Your task to perform on an android device: clear history in the chrome app Image 0: 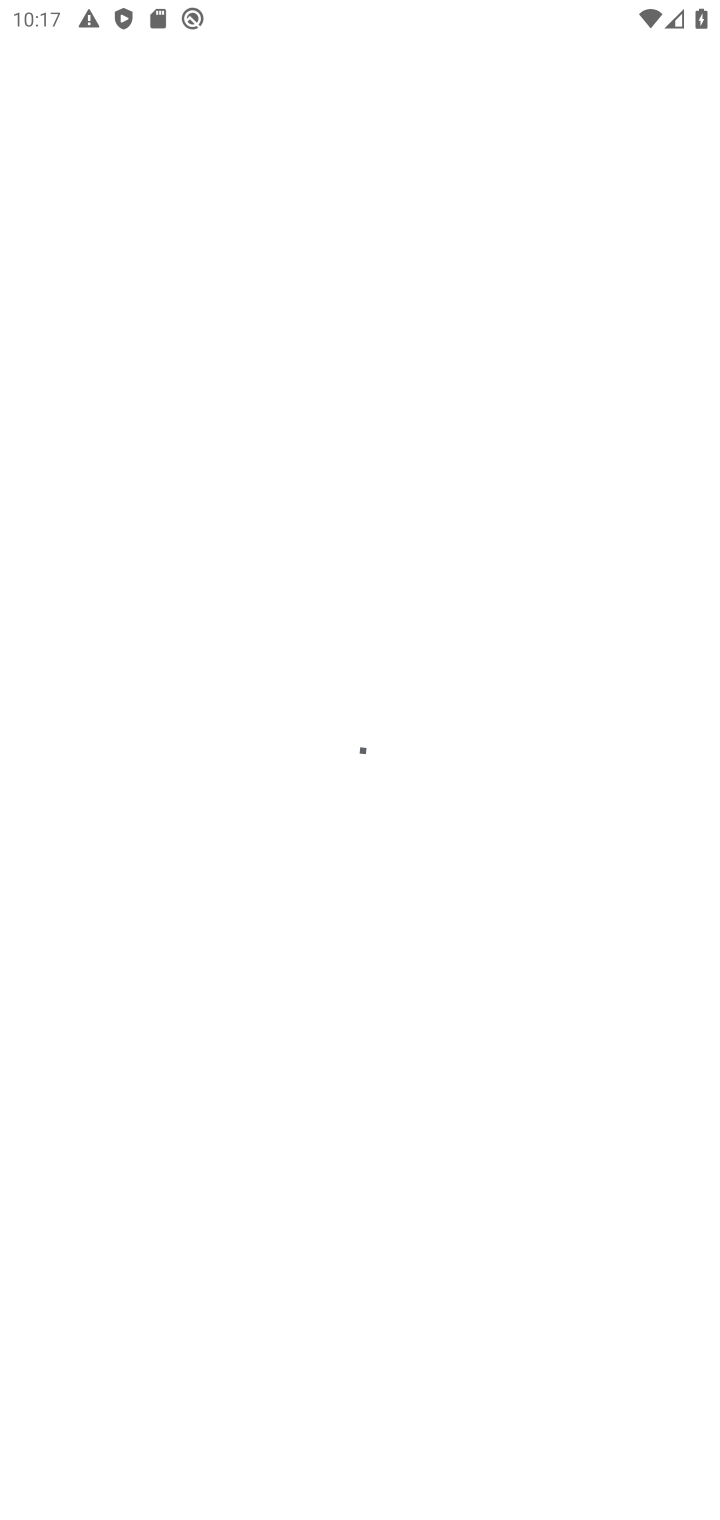
Step 0: press home button
Your task to perform on an android device: clear history in the chrome app Image 1: 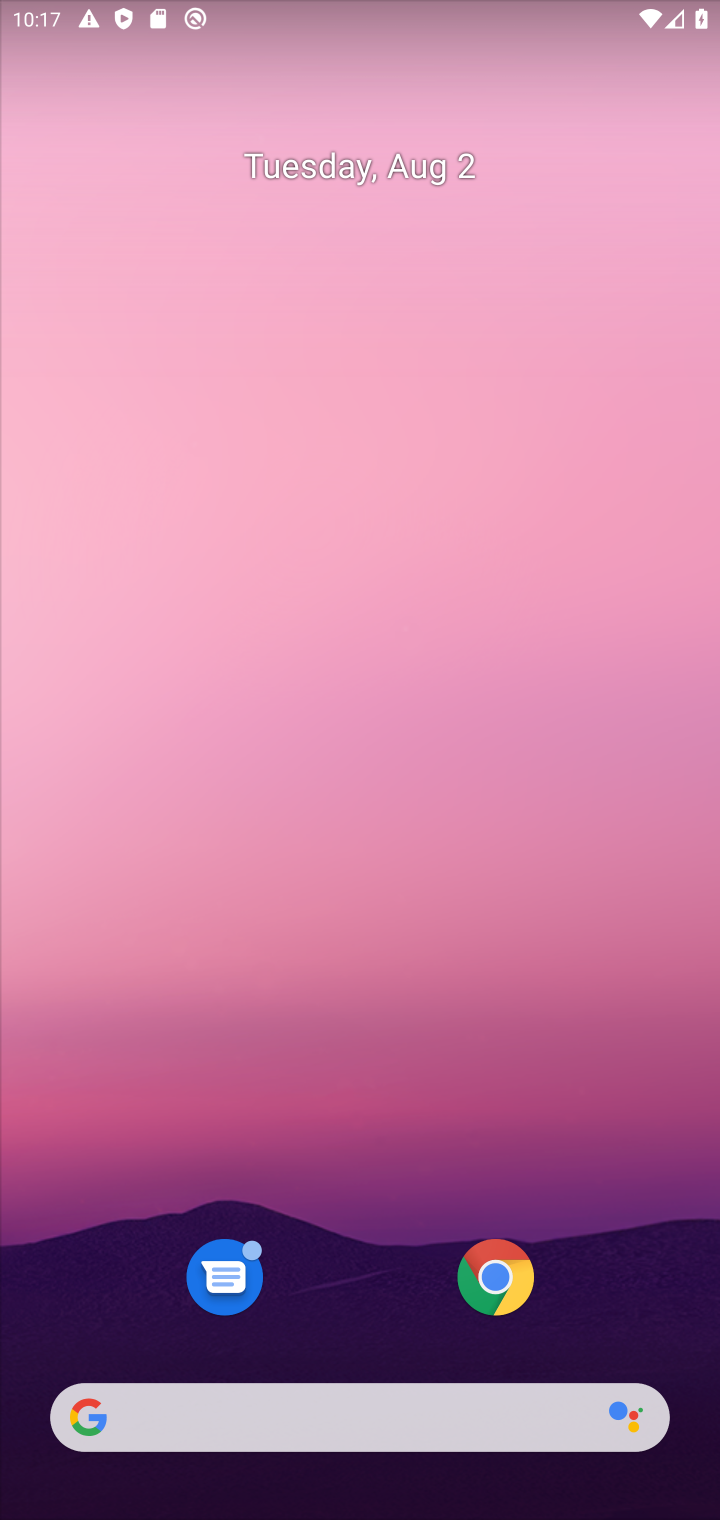
Step 1: click (504, 1281)
Your task to perform on an android device: clear history in the chrome app Image 2: 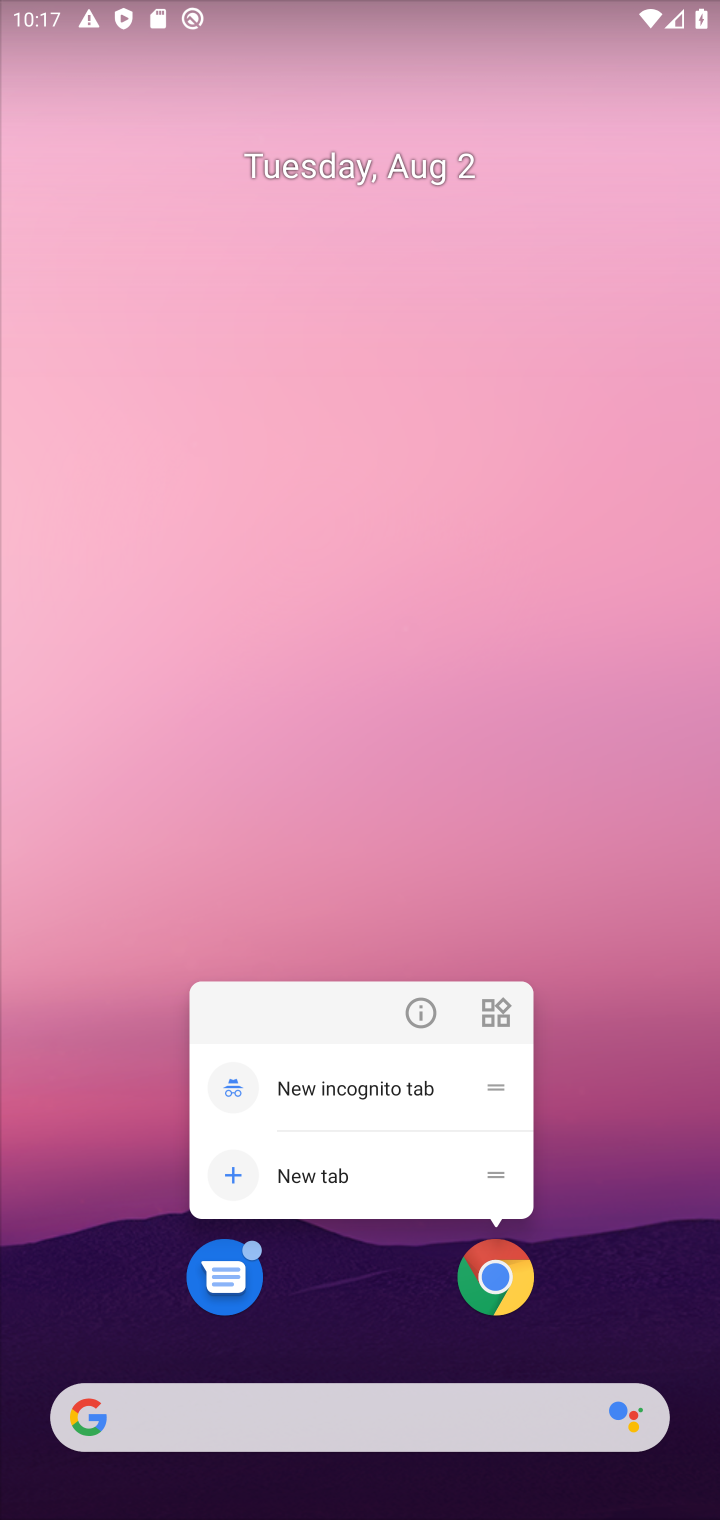
Step 2: click (504, 1281)
Your task to perform on an android device: clear history in the chrome app Image 3: 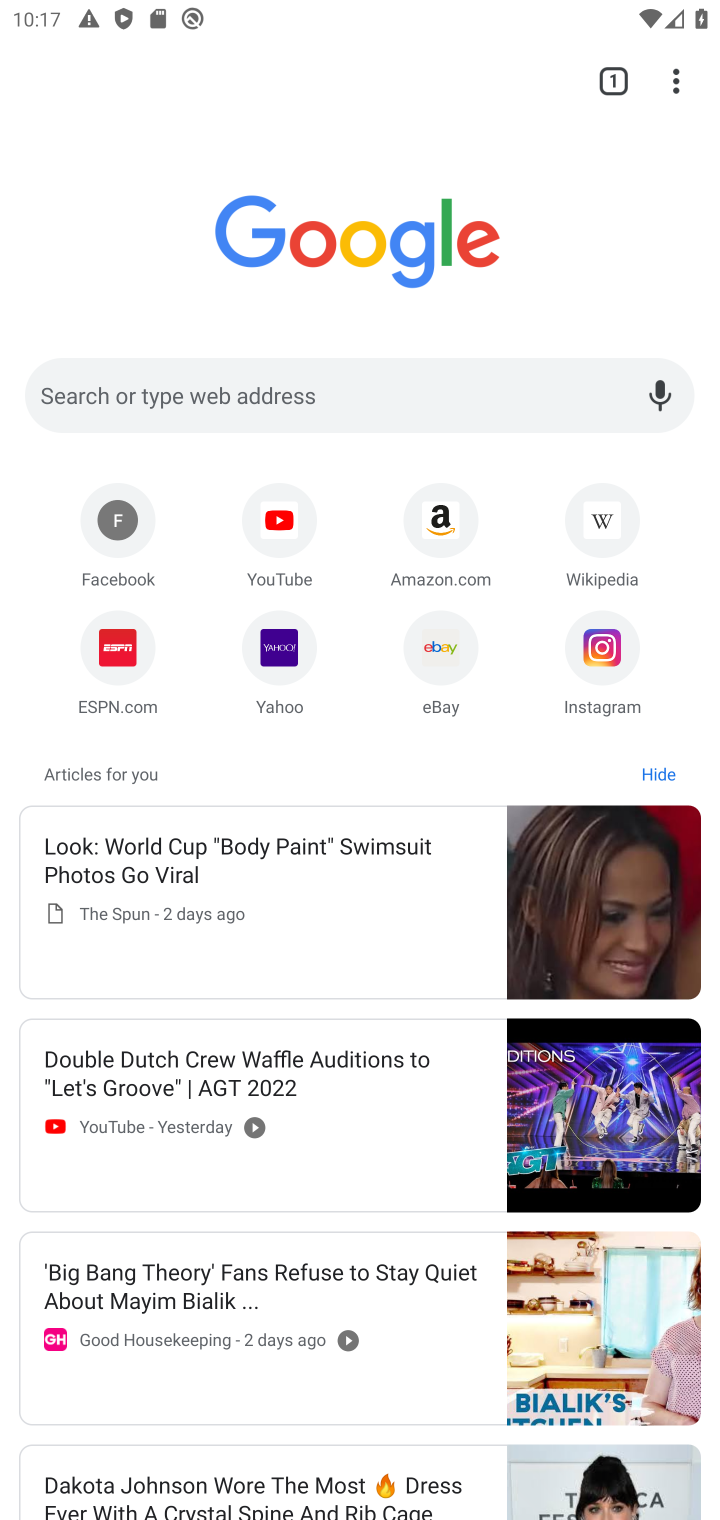
Step 3: click (672, 86)
Your task to perform on an android device: clear history in the chrome app Image 4: 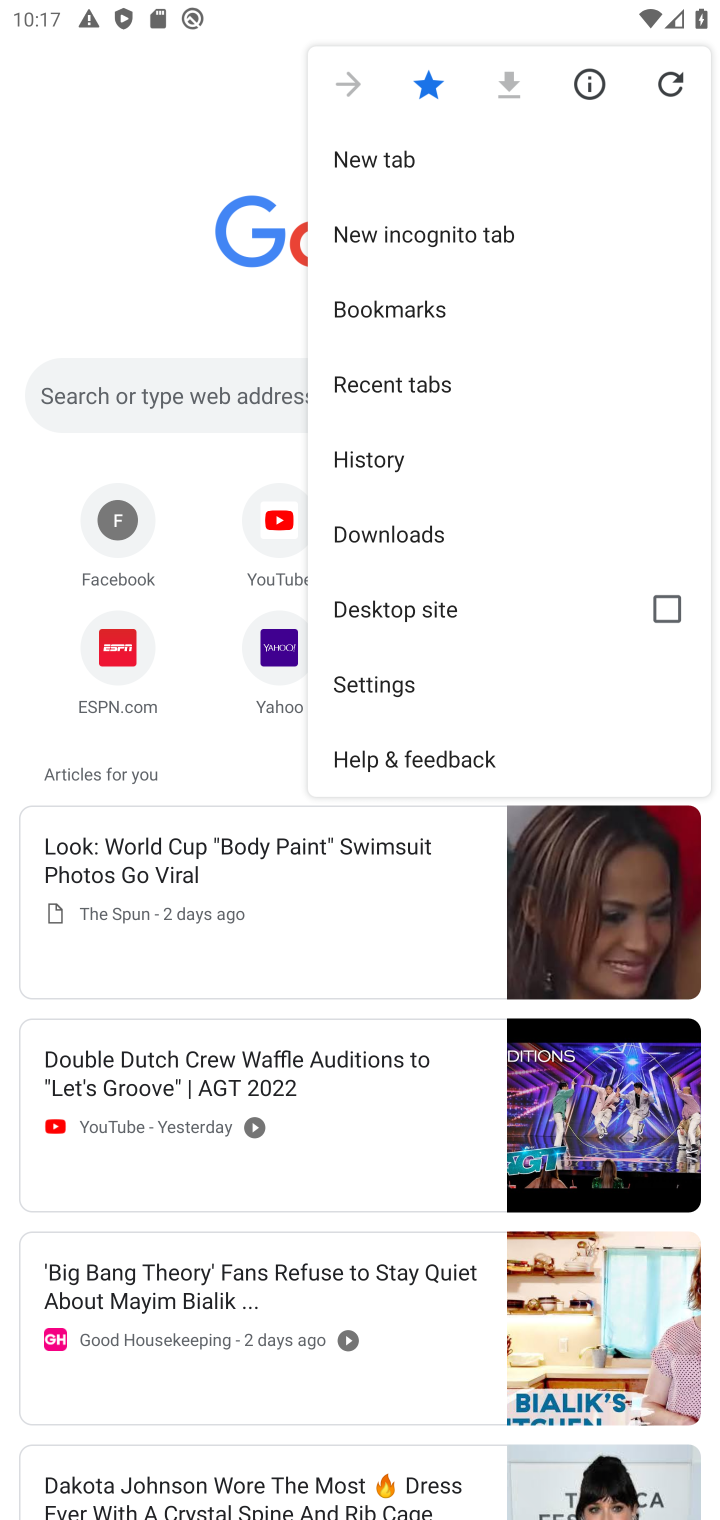
Step 4: click (361, 462)
Your task to perform on an android device: clear history in the chrome app Image 5: 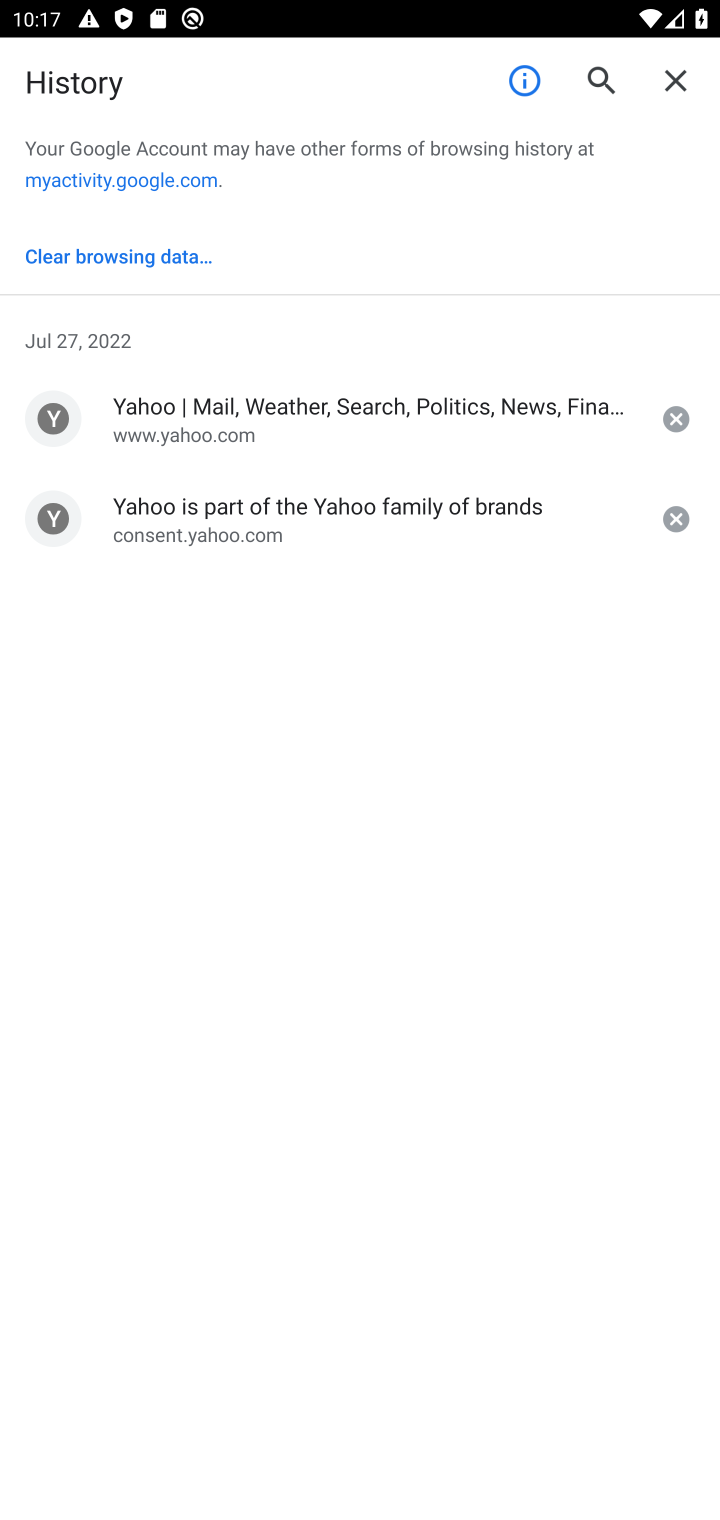
Step 5: click (119, 254)
Your task to perform on an android device: clear history in the chrome app Image 6: 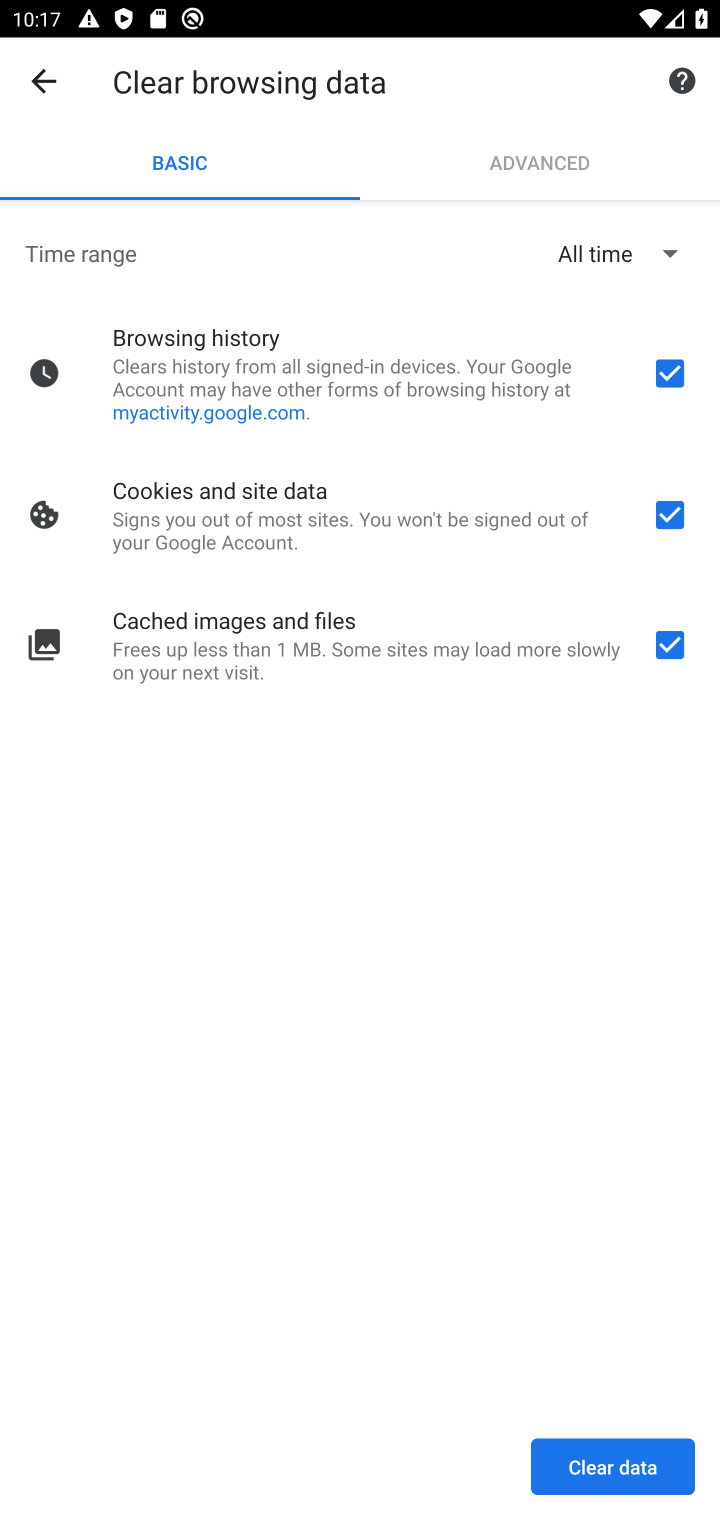
Step 6: click (671, 505)
Your task to perform on an android device: clear history in the chrome app Image 7: 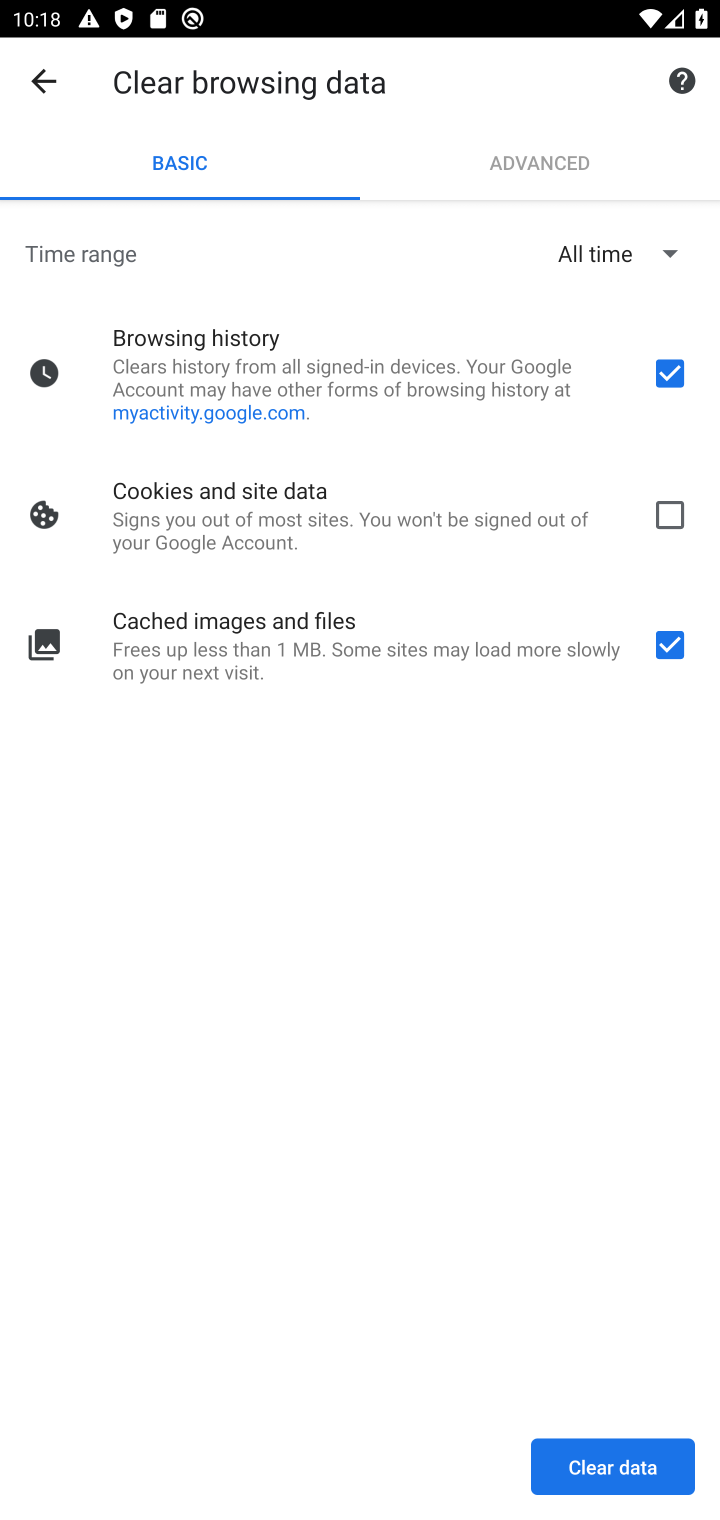
Step 7: click (667, 653)
Your task to perform on an android device: clear history in the chrome app Image 8: 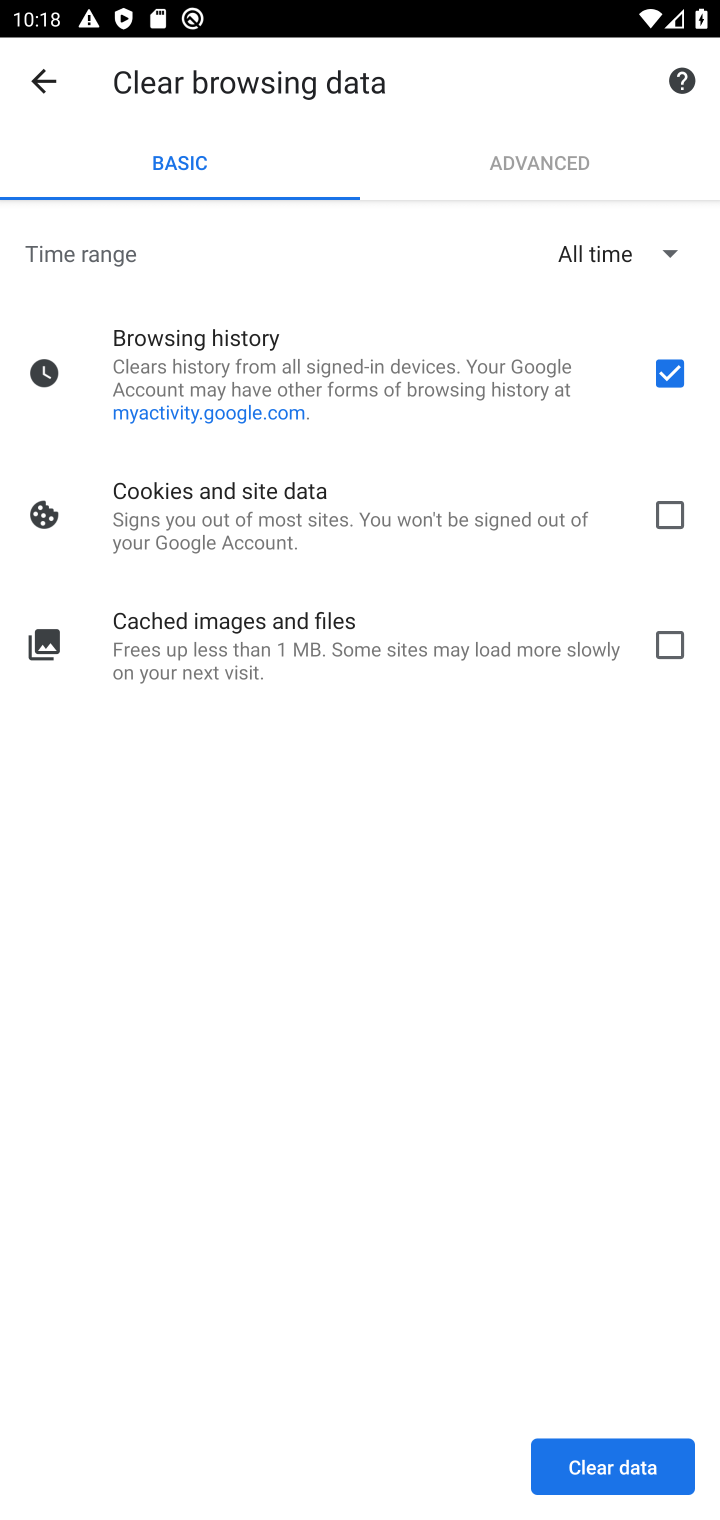
Step 8: click (622, 1456)
Your task to perform on an android device: clear history in the chrome app Image 9: 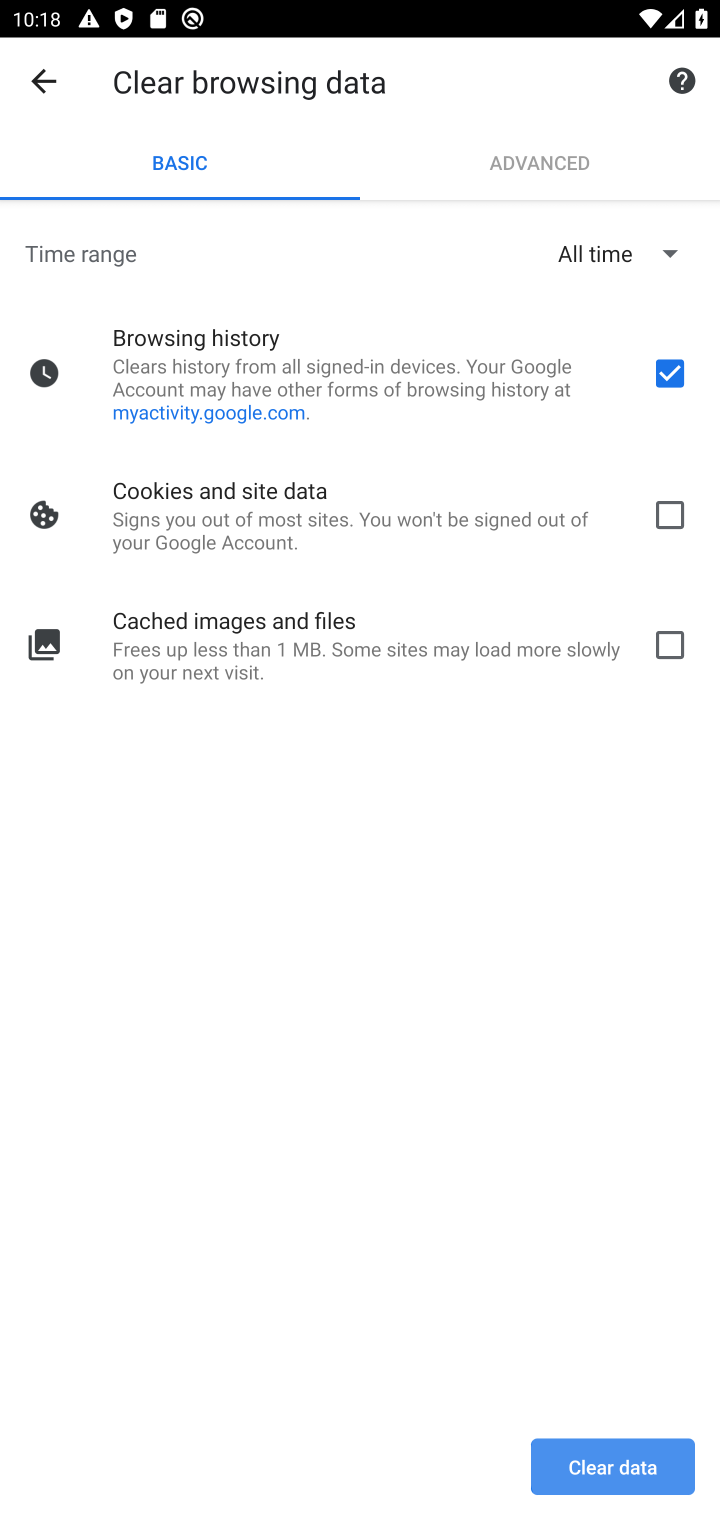
Step 9: click (622, 1456)
Your task to perform on an android device: clear history in the chrome app Image 10: 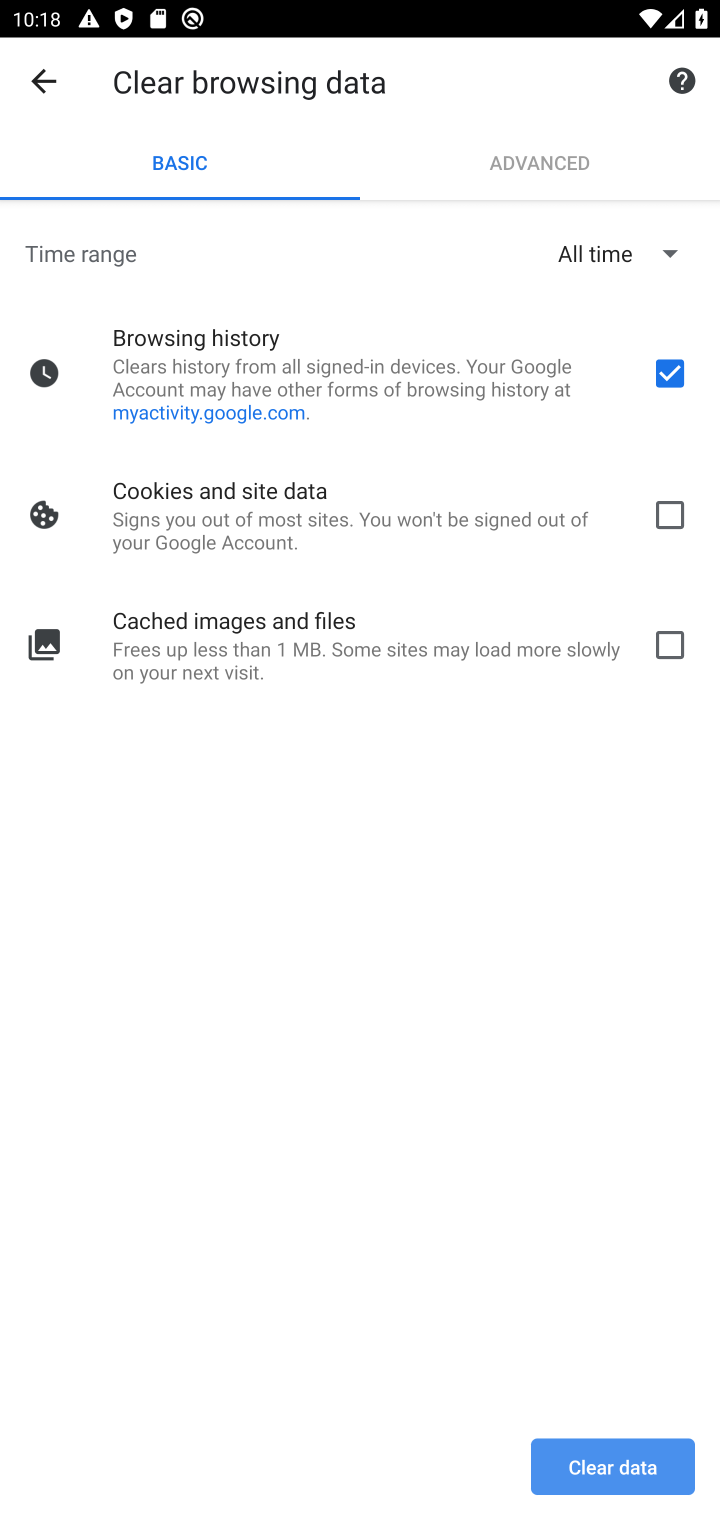
Step 10: click (619, 1459)
Your task to perform on an android device: clear history in the chrome app Image 11: 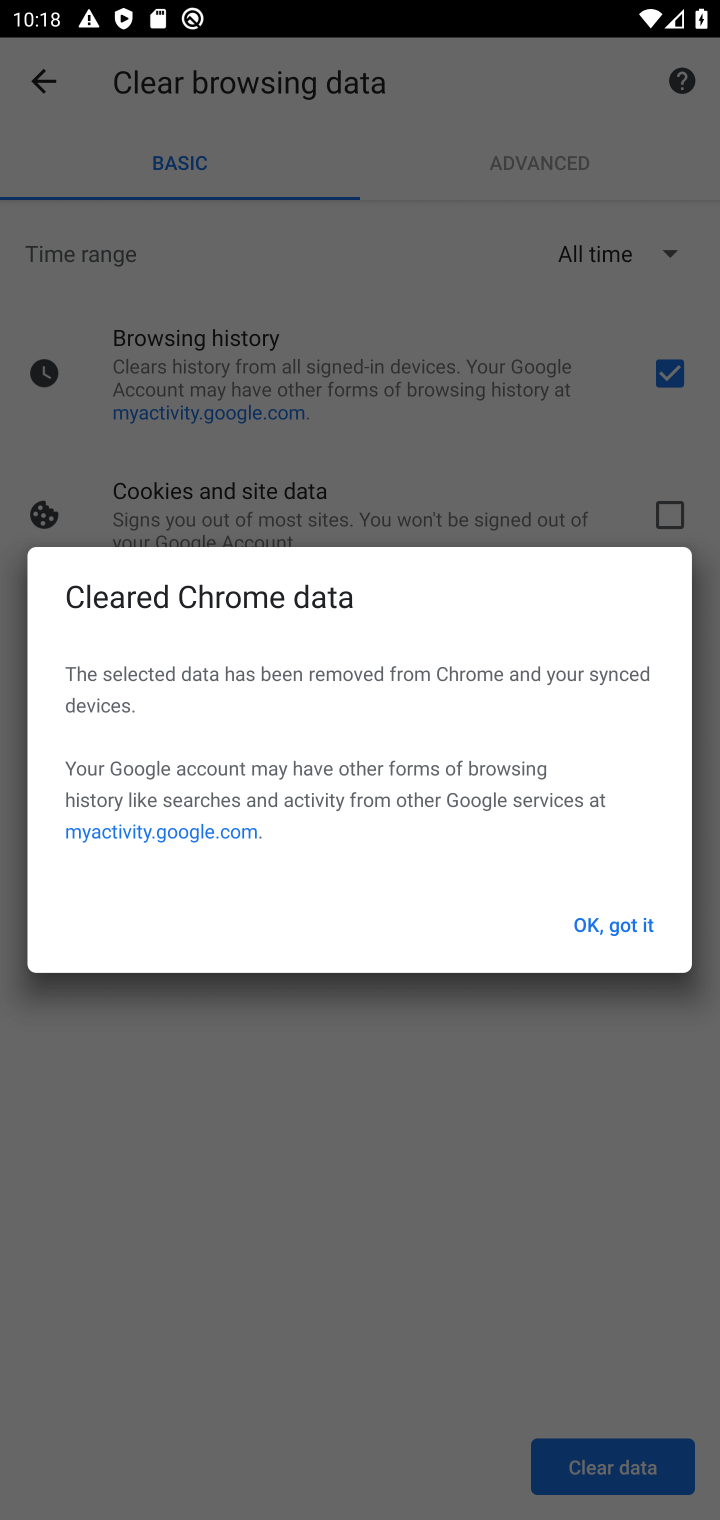
Step 11: click (614, 924)
Your task to perform on an android device: clear history in the chrome app Image 12: 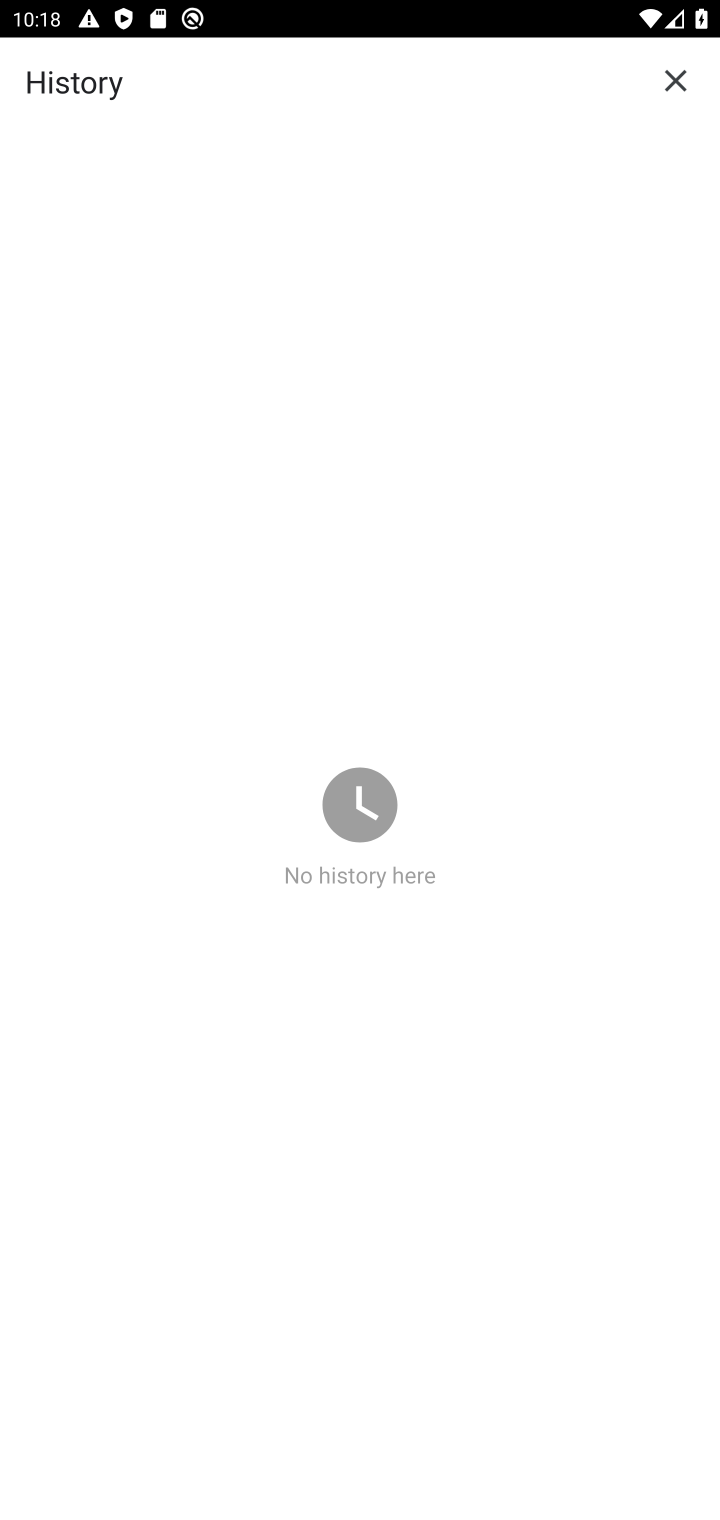
Step 12: task complete